Your task to perform on an android device: Search for pizza restaurants on Maps Image 0: 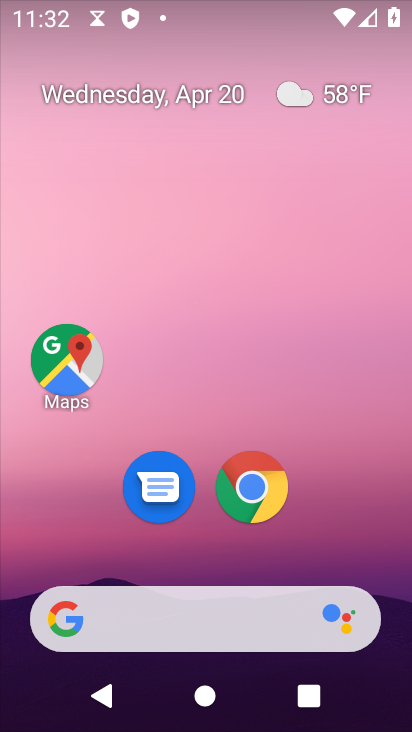
Step 0: drag from (392, 655) to (281, 1)
Your task to perform on an android device: Search for pizza restaurants on Maps Image 1: 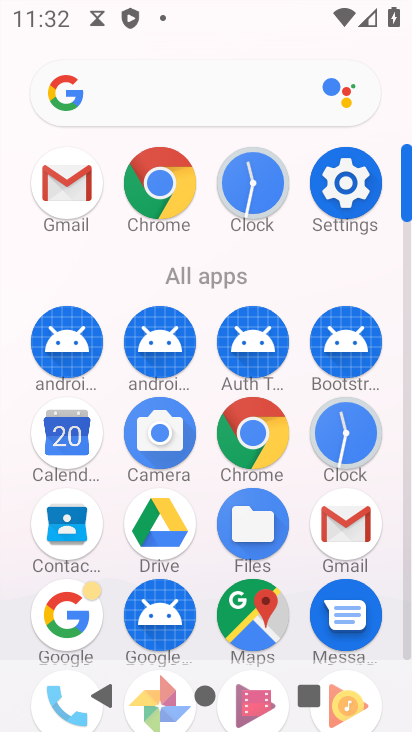
Step 1: drag from (17, 437) to (19, 340)
Your task to perform on an android device: Search for pizza restaurants on Maps Image 2: 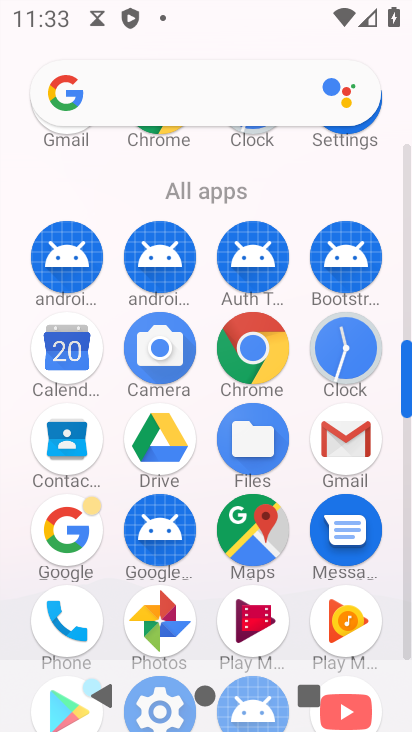
Step 2: click (246, 530)
Your task to perform on an android device: Search for pizza restaurants on Maps Image 3: 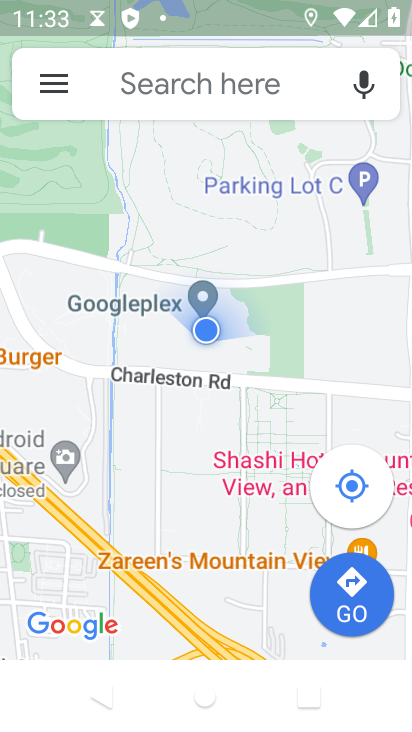
Step 3: click (283, 74)
Your task to perform on an android device: Search for pizza restaurants on Maps Image 4: 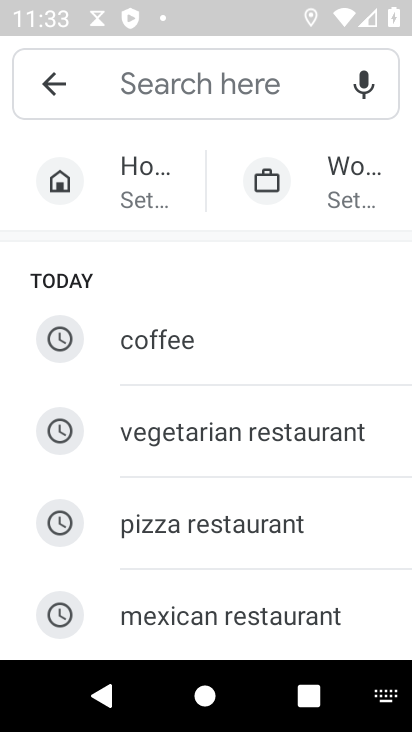
Step 4: type " pizza restaurants "
Your task to perform on an android device: Search for pizza restaurants on Maps Image 5: 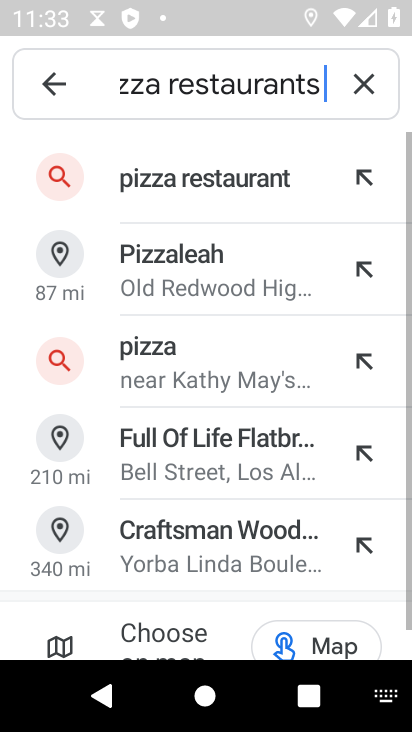
Step 5: click (204, 190)
Your task to perform on an android device: Search for pizza restaurants on Maps Image 6: 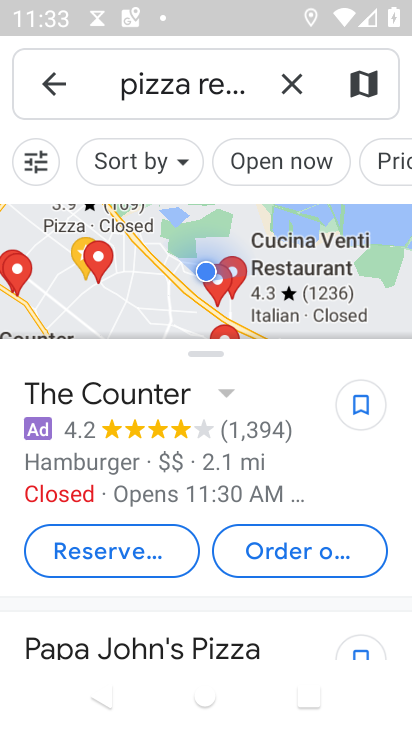
Step 6: task complete